Your task to perform on an android device: make emails show in primary in the gmail app Image 0: 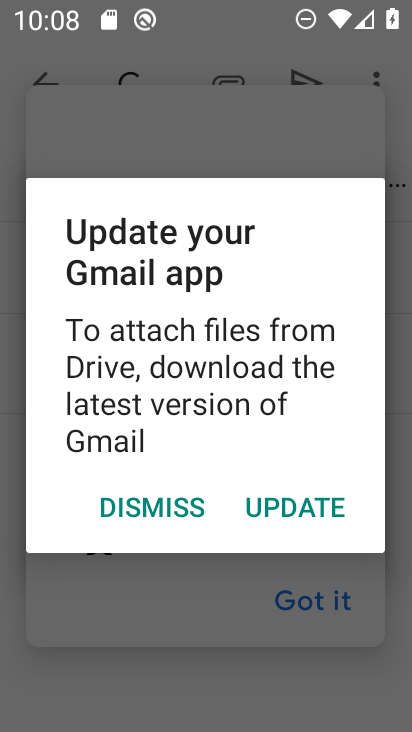
Step 0: press home button
Your task to perform on an android device: make emails show in primary in the gmail app Image 1: 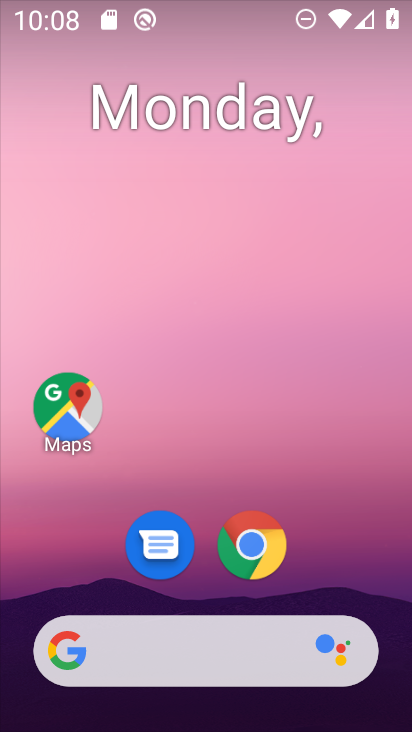
Step 1: drag from (5, 631) to (381, 182)
Your task to perform on an android device: make emails show in primary in the gmail app Image 2: 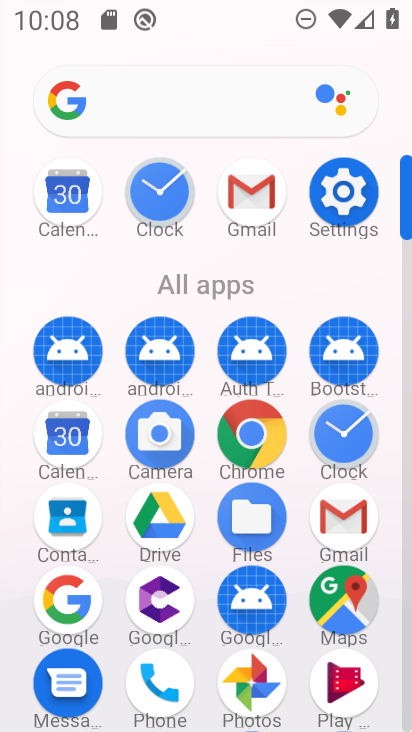
Step 2: click (347, 517)
Your task to perform on an android device: make emails show in primary in the gmail app Image 3: 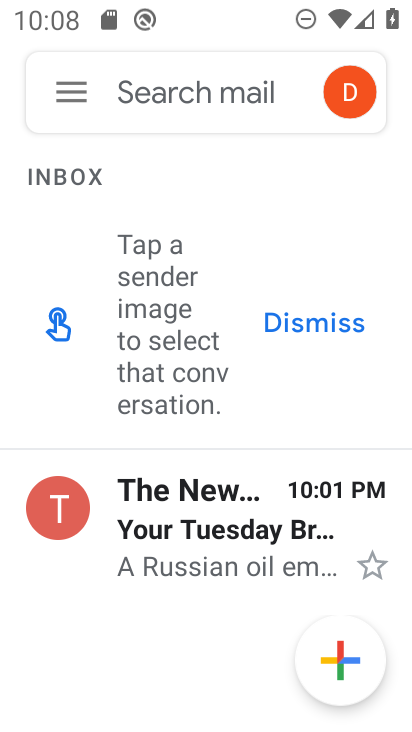
Step 3: click (68, 83)
Your task to perform on an android device: make emails show in primary in the gmail app Image 4: 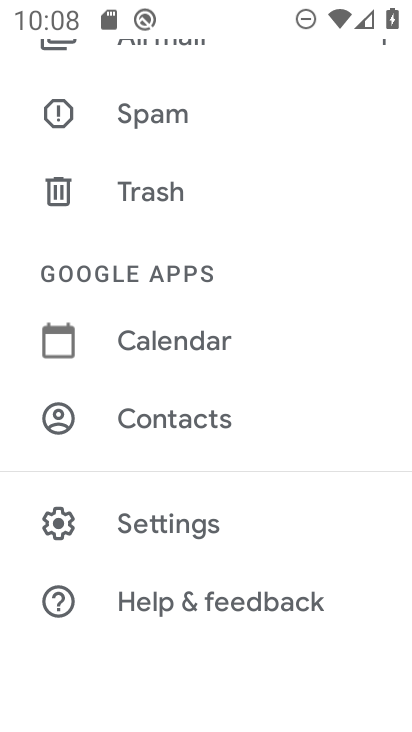
Step 4: drag from (206, 108) to (179, 716)
Your task to perform on an android device: make emails show in primary in the gmail app Image 5: 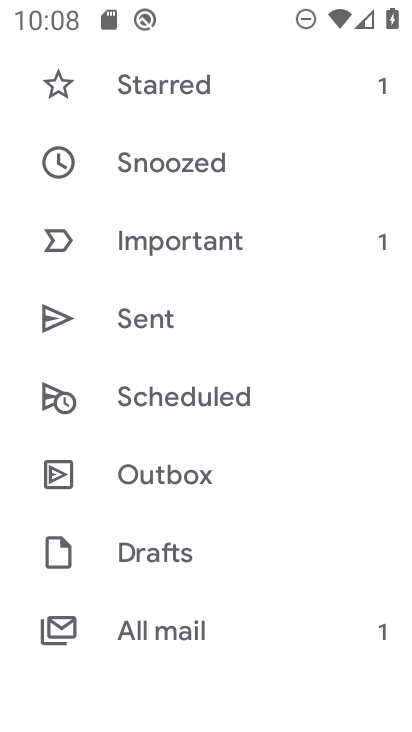
Step 5: drag from (198, 137) to (219, 645)
Your task to perform on an android device: make emails show in primary in the gmail app Image 6: 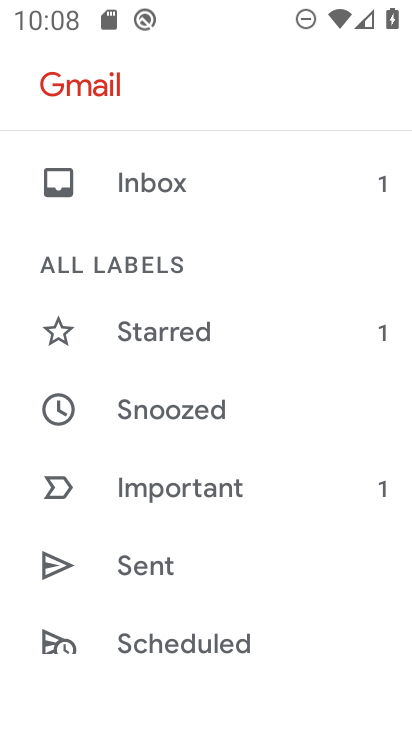
Step 6: click (176, 183)
Your task to perform on an android device: make emails show in primary in the gmail app Image 7: 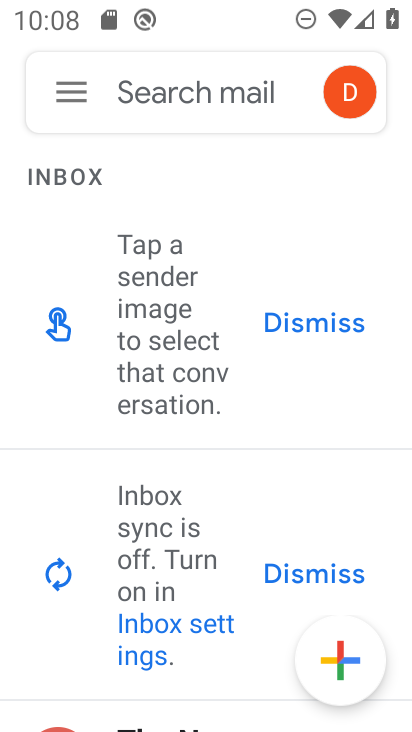
Step 7: drag from (90, 345) to (257, 118)
Your task to perform on an android device: make emails show in primary in the gmail app Image 8: 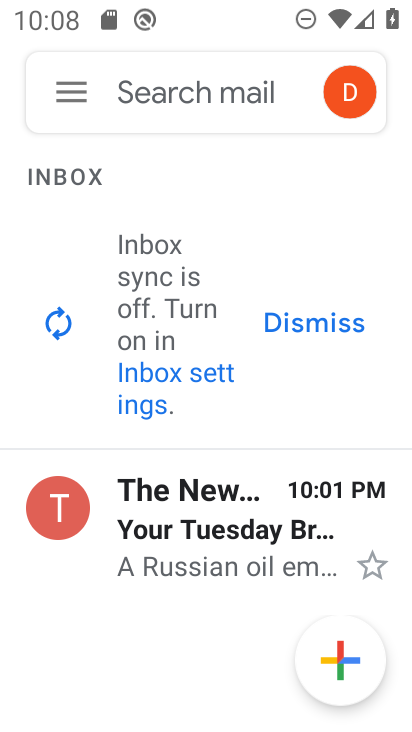
Step 8: click (166, 545)
Your task to perform on an android device: make emails show in primary in the gmail app Image 9: 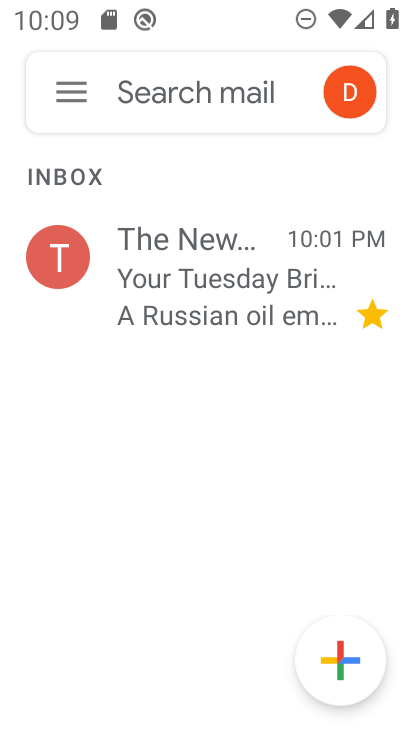
Step 9: click (227, 291)
Your task to perform on an android device: make emails show in primary in the gmail app Image 10: 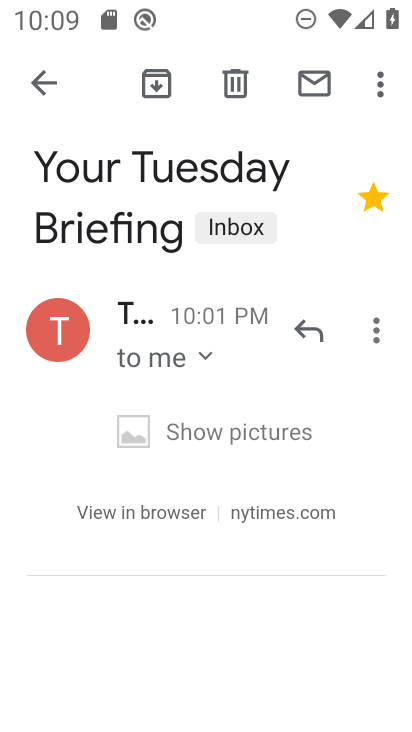
Step 10: click (383, 82)
Your task to perform on an android device: make emails show in primary in the gmail app Image 11: 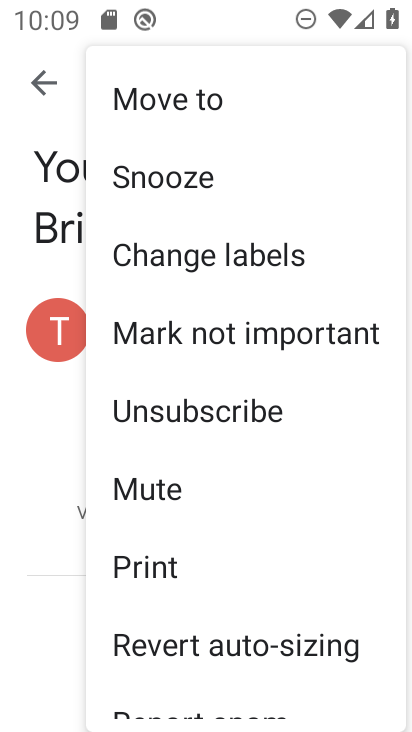
Step 11: click (42, 537)
Your task to perform on an android device: make emails show in primary in the gmail app Image 12: 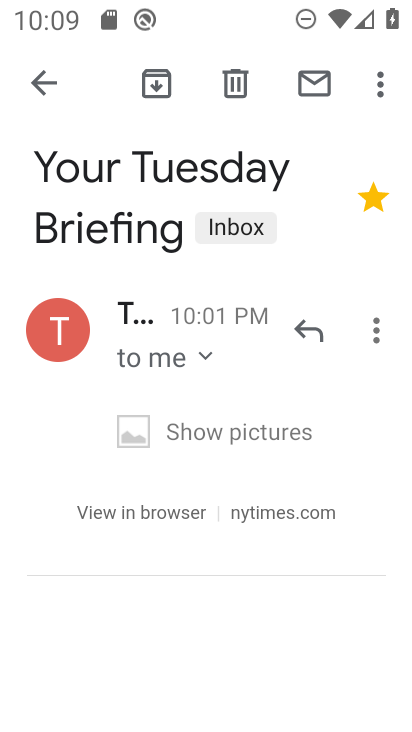
Step 12: task complete